Your task to perform on an android device: Search for sushi restaurants on Maps Image 0: 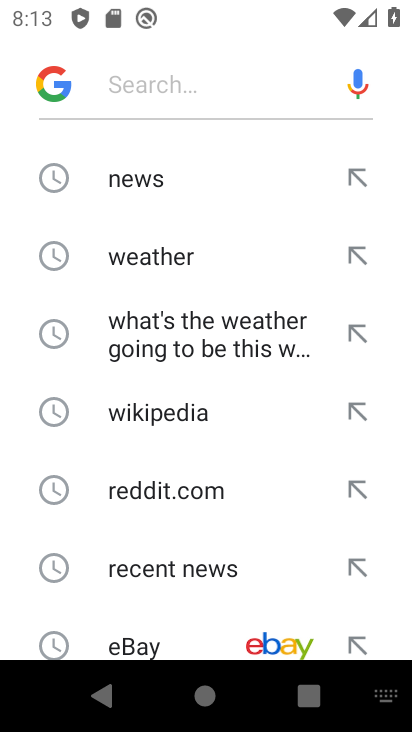
Step 0: press home button
Your task to perform on an android device: Search for sushi restaurants on Maps Image 1: 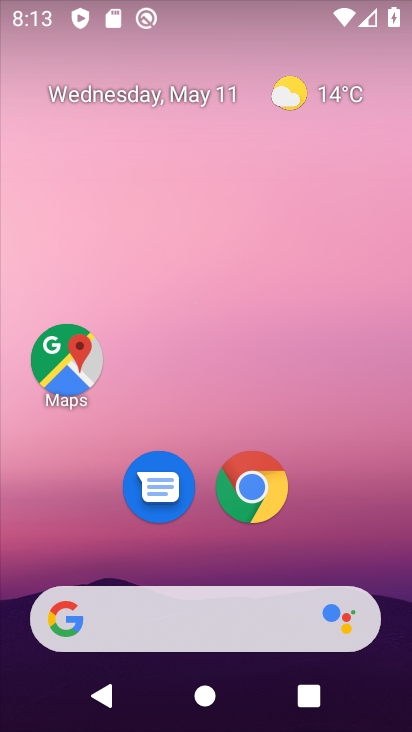
Step 1: click (80, 364)
Your task to perform on an android device: Search for sushi restaurants on Maps Image 2: 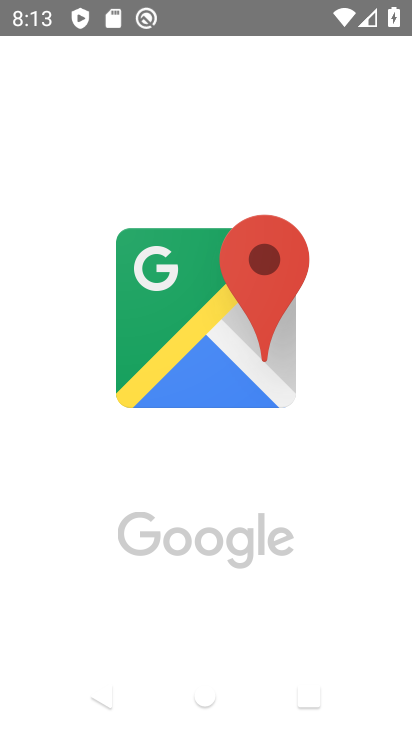
Step 2: click (61, 358)
Your task to perform on an android device: Search for sushi restaurants on Maps Image 3: 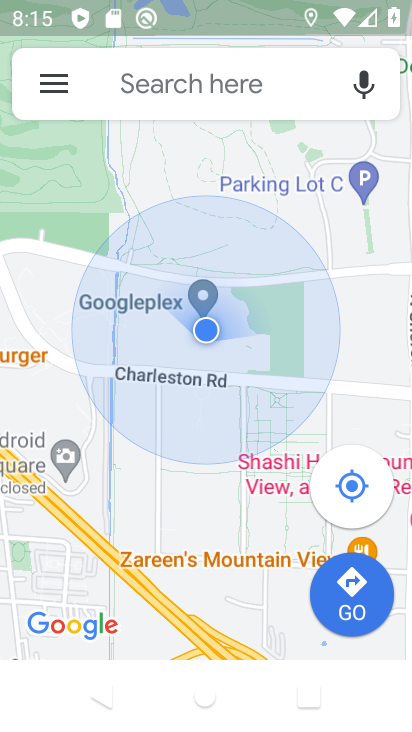
Step 3: click (138, 90)
Your task to perform on an android device: Search for sushi restaurants on Maps Image 4: 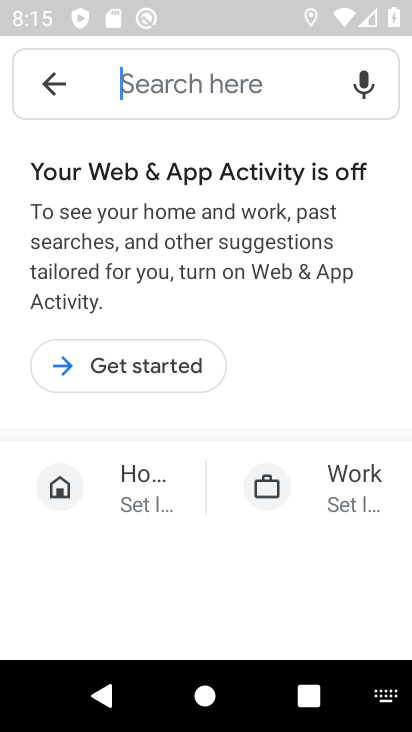
Step 4: drag from (154, 578) to (154, 224)
Your task to perform on an android device: Search for sushi restaurants on Maps Image 5: 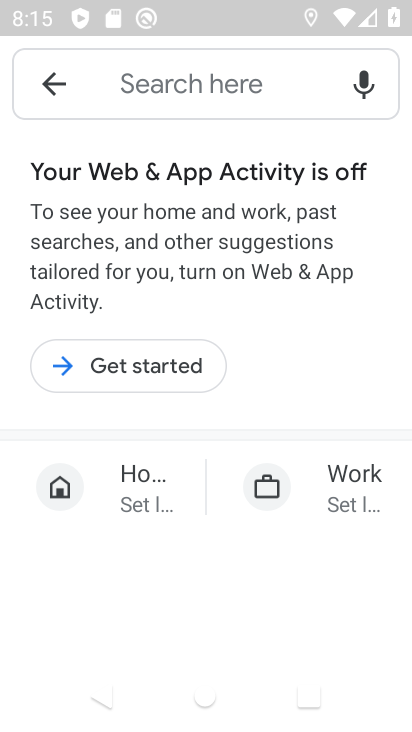
Step 5: type "sushi restaurants"
Your task to perform on an android device: Search for sushi restaurants on Maps Image 6: 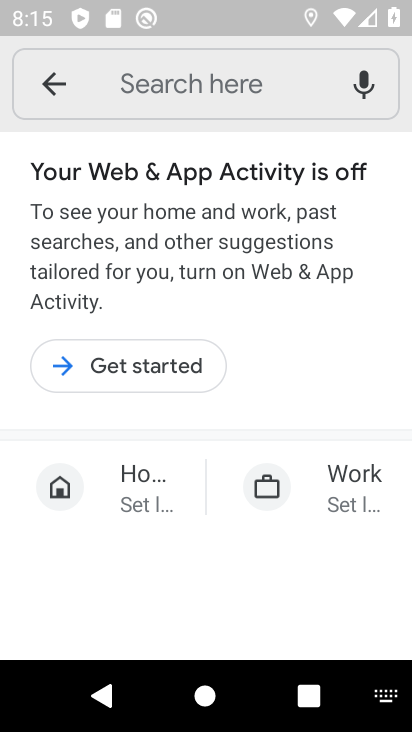
Step 6: click (184, 86)
Your task to perform on an android device: Search for sushi restaurants on Maps Image 7: 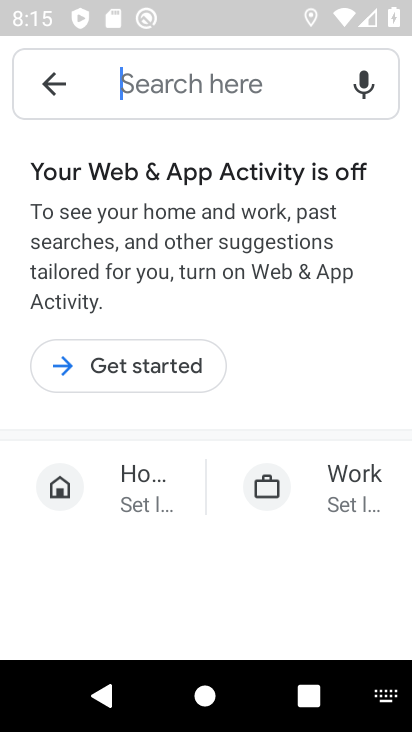
Step 7: type "sushi restaurants"
Your task to perform on an android device: Search for sushi restaurants on Maps Image 8: 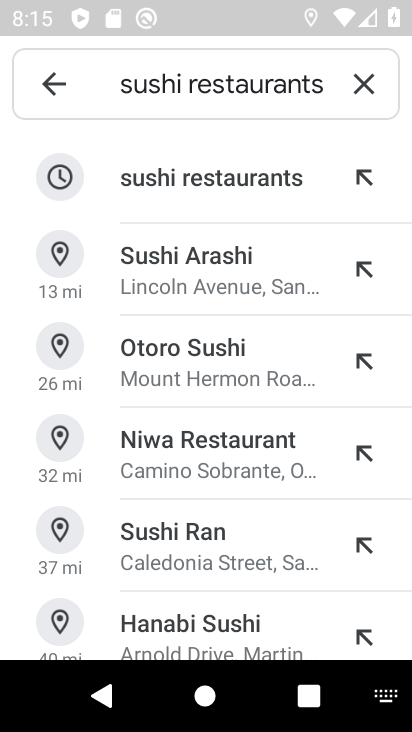
Step 8: click (165, 184)
Your task to perform on an android device: Search for sushi restaurants on Maps Image 9: 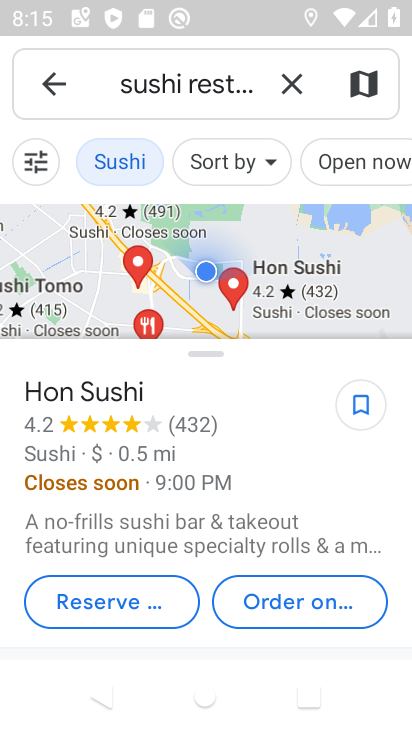
Step 9: task complete